Your task to perform on an android device: change the clock display to show seconds Image 0: 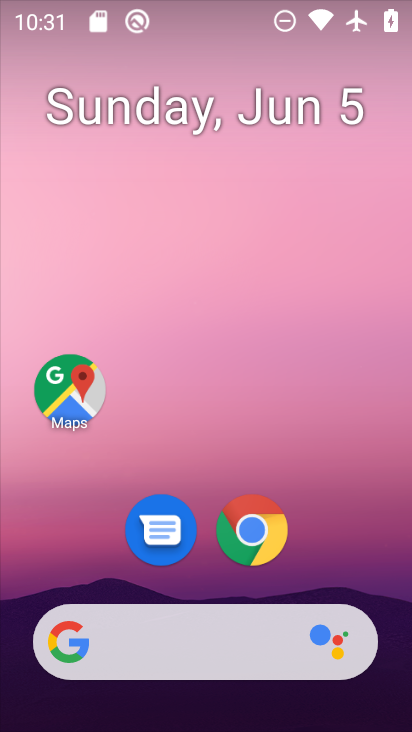
Step 0: drag from (387, 614) to (312, 44)
Your task to perform on an android device: change the clock display to show seconds Image 1: 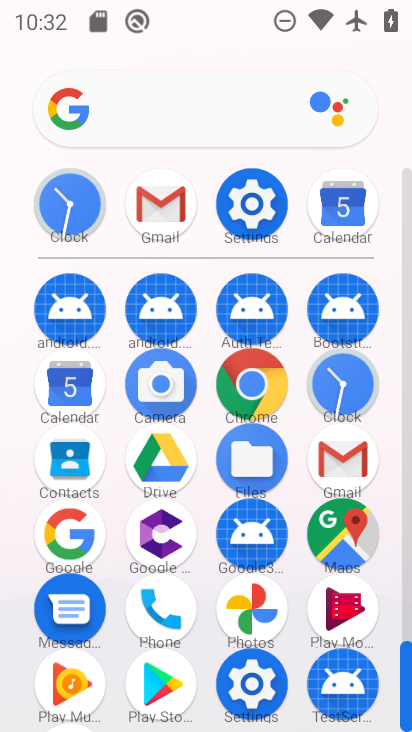
Step 1: click (343, 381)
Your task to perform on an android device: change the clock display to show seconds Image 2: 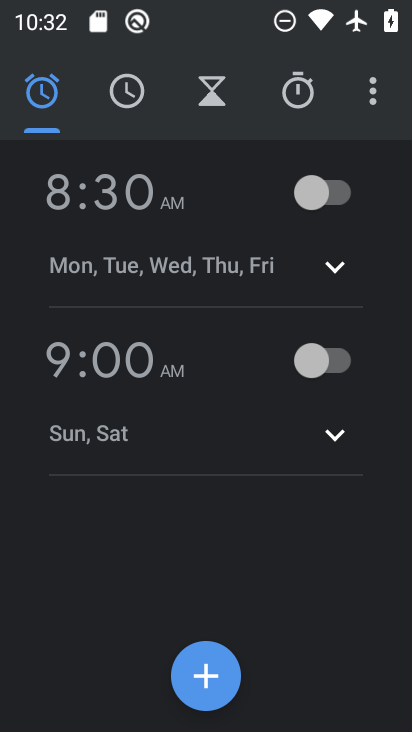
Step 2: click (368, 94)
Your task to perform on an android device: change the clock display to show seconds Image 3: 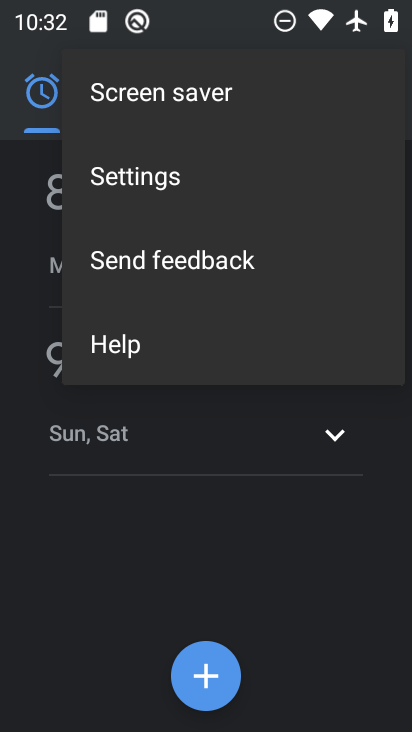
Step 3: click (148, 171)
Your task to perform on an android device: change the clock display to show seconds Image 4: 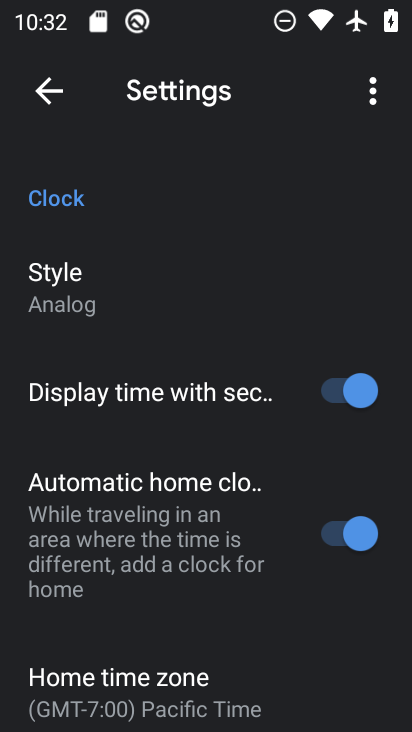
Step 4: task complete